Your task to perform on an android device: How much does a 2 bedroom apartment rent for in Miami? Image 0: 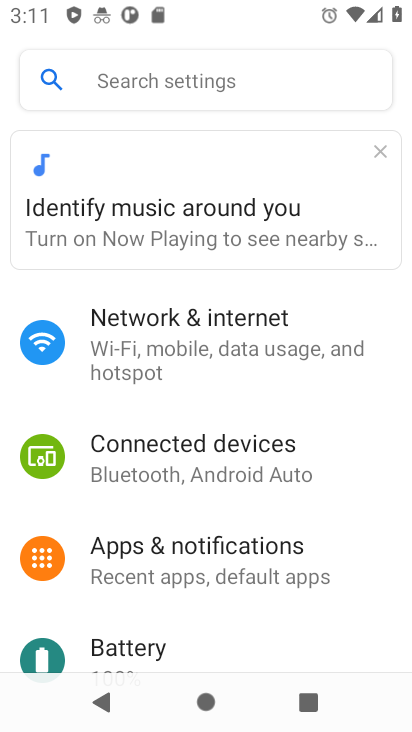
Step 0: press home button
Your task to perform on an android device: How much does a 2 bedroom apartment rent for in Miami? Image 1: 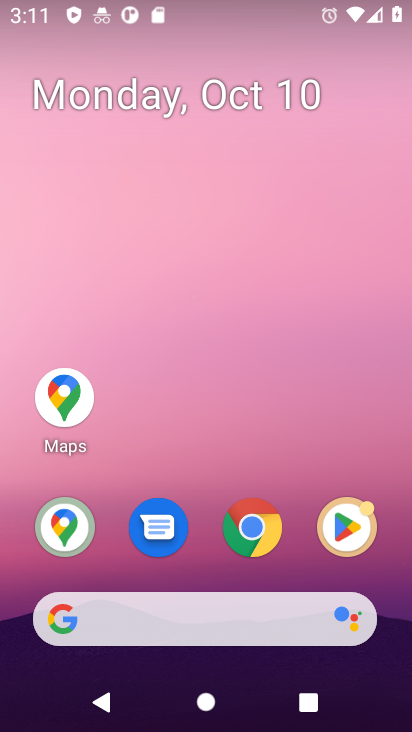
Step 1: click (255, 528)
Your task to perform on an android device: How much does a 2 bedroom apartment rent for in Miami? Image 2: 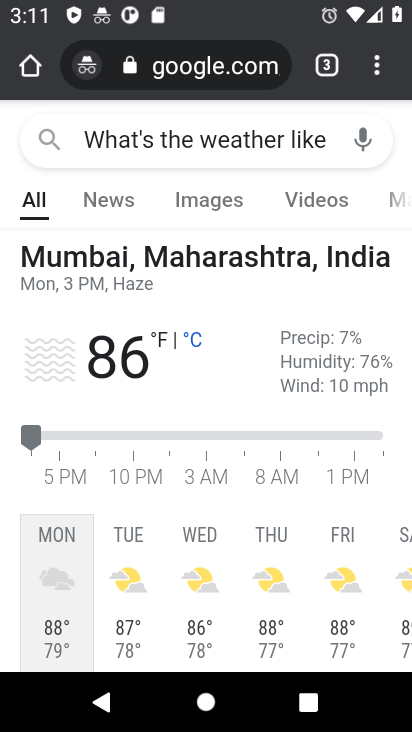
Step 2: click (256, 66)
Your task to perform on an android device: How much does a 2 bedroom apartment rent for in Miami? Image 3: 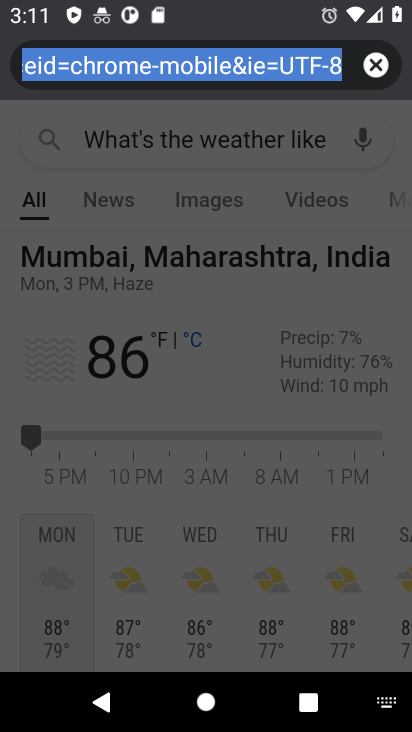
Step 3: click (375, 64)
Your task to perform on an android device: How much does a 2 bedroom apartment rent for in Miami? Image 4: 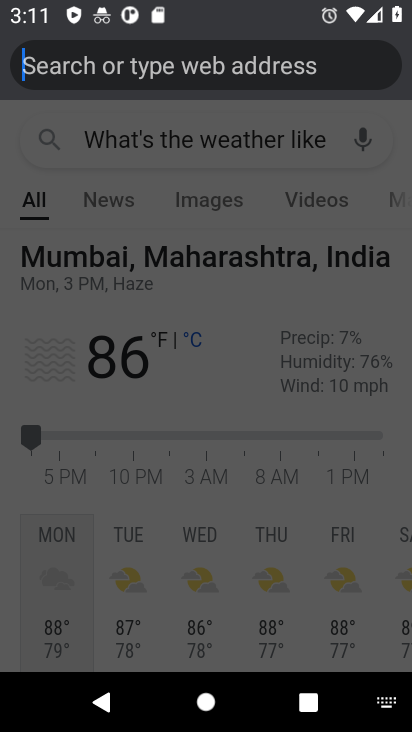
Step 4: type "How much does a 2 bedroom apartment rent for in Miami?"
Your task to perform on an android device: How much does a 2 bedroom apartment rent for in Miami? Image 5: 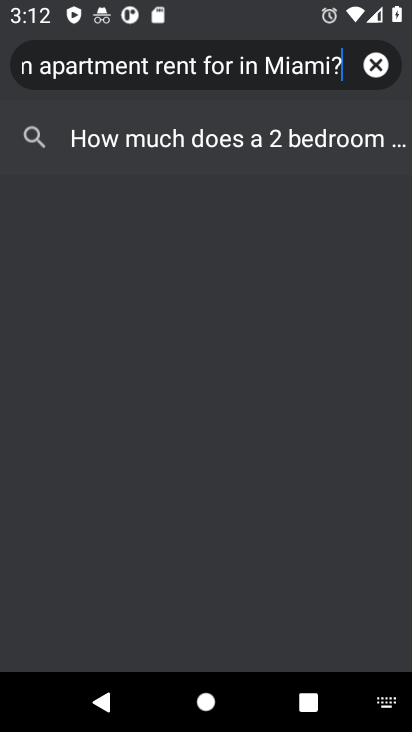
Step 5: click (360, 145)
Your task to perform on an android device: How much does a 2 bedroom apartment rent for in Miami? Image 6: 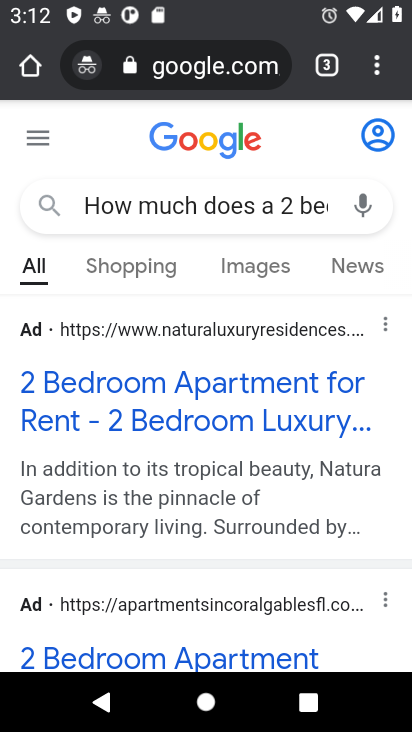
Step 6: task complete